Your task to perform on an android device: Play the last video I watched on Youtube Image 0: 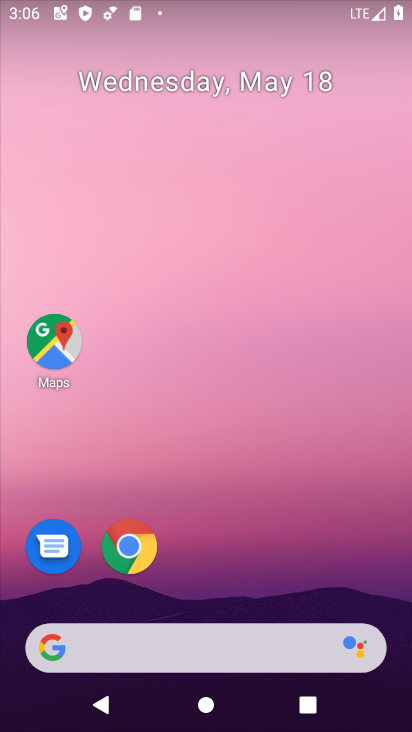
Step 0: drag from (223, 720) to (251, 98)
Your task to perform on an android device: Play the last video I watched on Youtube Image 1: 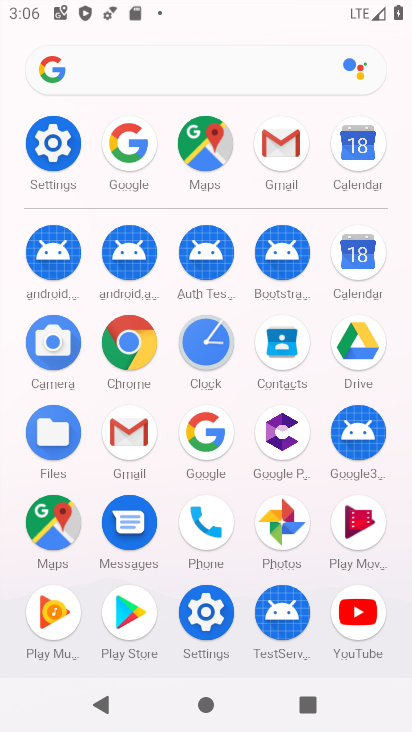
Step 1: click (365, 613)
Your task to perform on an android device: Play the last video I watched on Youtube Image 2: 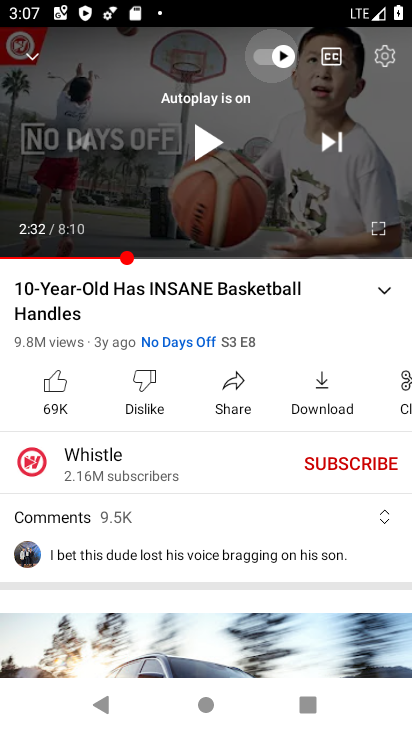
Step 2: click (32, 55)
Your task to perform on an android device: Play the last video I watched on Youtube Image 3: 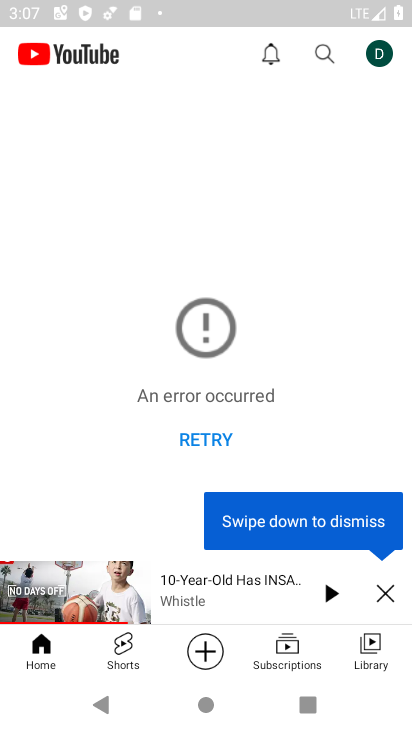
Step 3: click (371, 658)
Your task to perform on an android device: Play the last video I watched on Youtube Image 4: 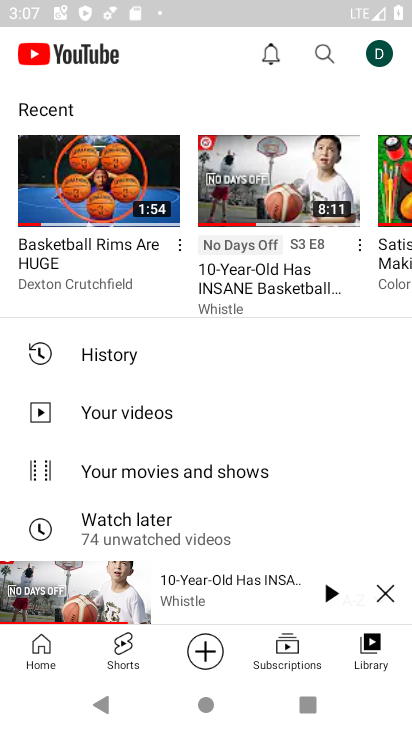
Step 4: click (76, 174)
Your task to perform on an android device: Play the last video I watched on Youtube Image 5: 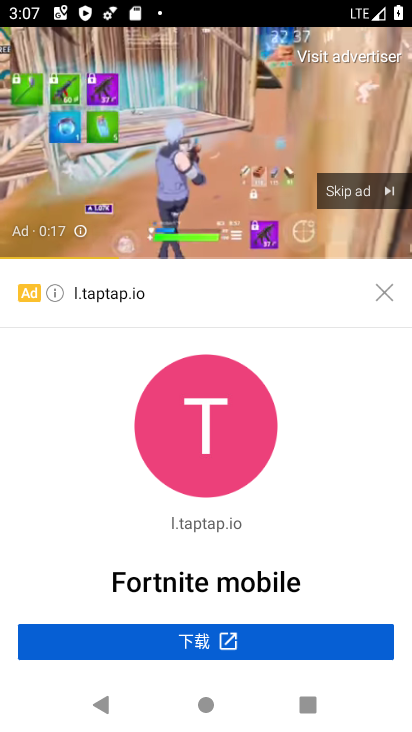
Step 5: click (352, 193)
Your task to perform on an android device: Play the last video I watched on Youtube Image 6: 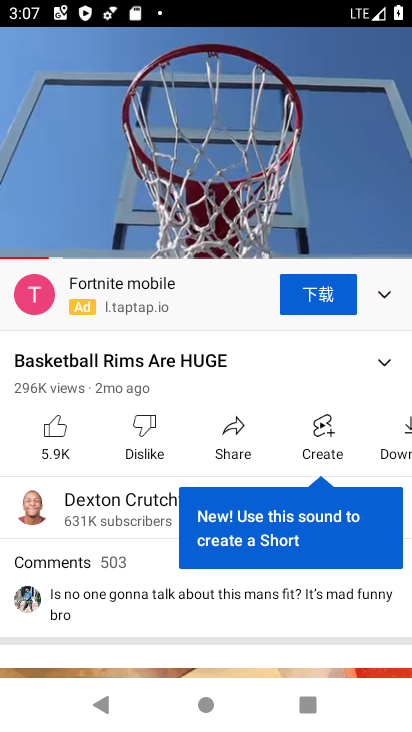
Step 6: task complete